Your task to perform on an android device: check google app version Image 0: 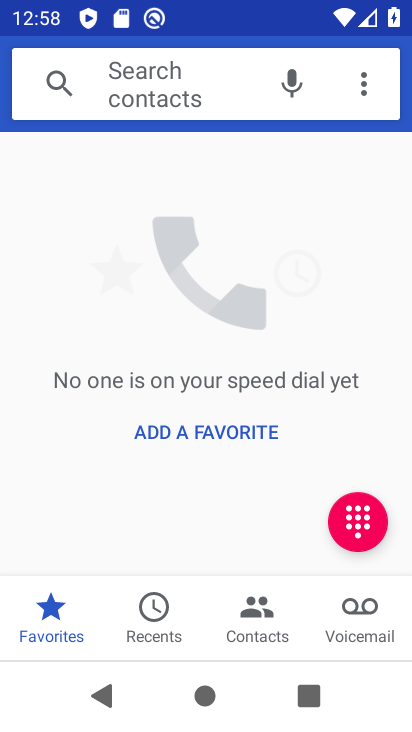
Step 0: press home button
Your task to perform on an android device: check google app version Image 1: 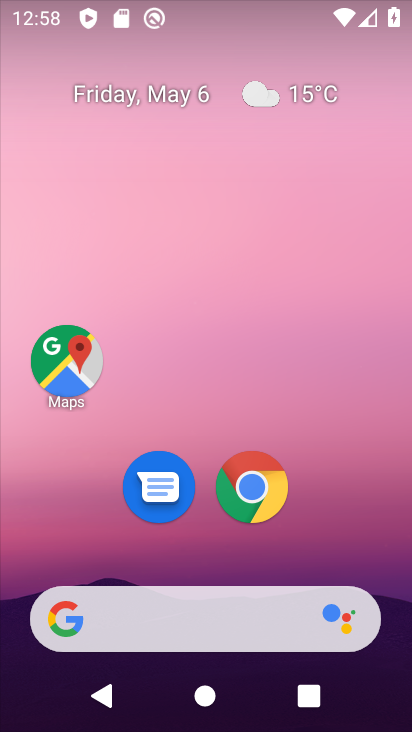
Step 1: drag from (332, 545) to (270, 74)
Your task to perform on an android device: check google app version Image 2: 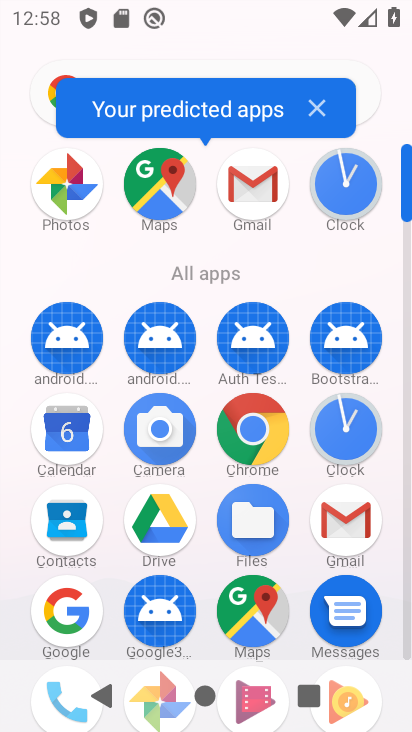
Step 2: click (47, 598)
Your task to perform on an android device: check google app version Image 3: 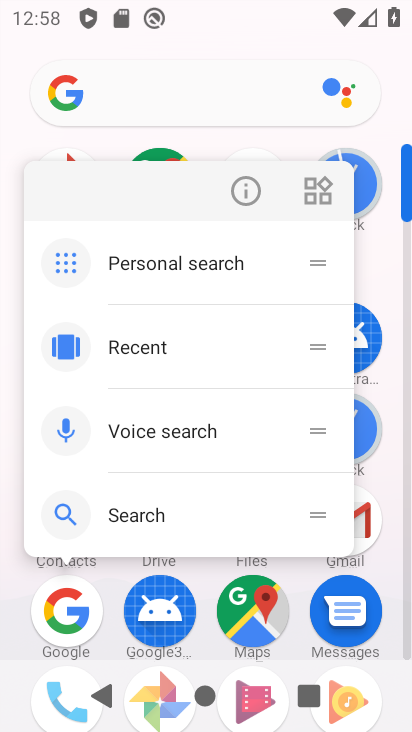
Step 3: click (240, 200)
Your task to perform on an android device: check google app version Image 4: 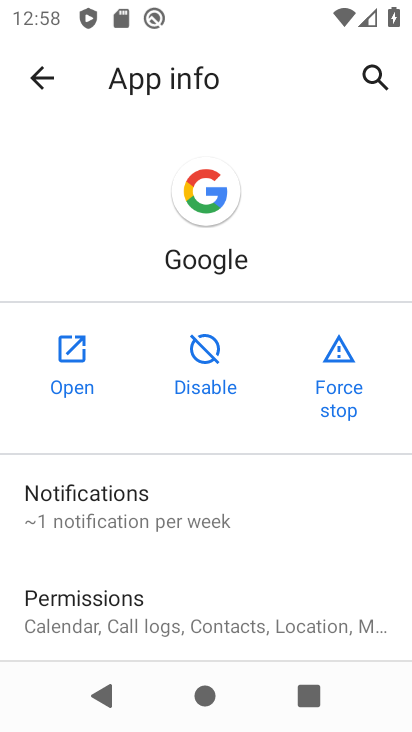
Step 4: drag from (228, 538) to (208, 325)
Your task to perform on an android device: check google app version Image 5: 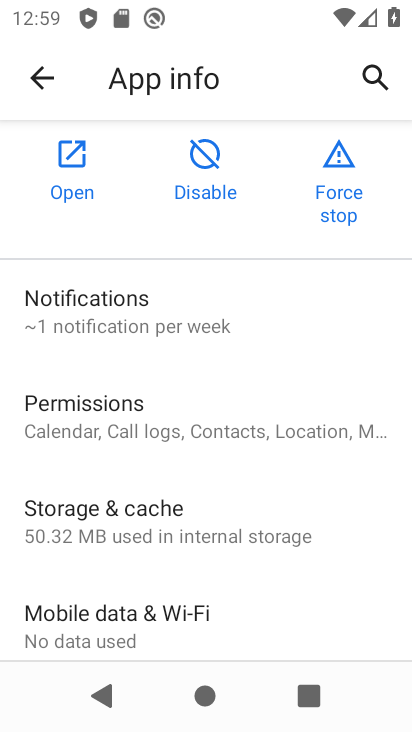
Step 5: drag from (185, 525) to (155, 76)
Your task to perform on an android device: check google app version Image 6: 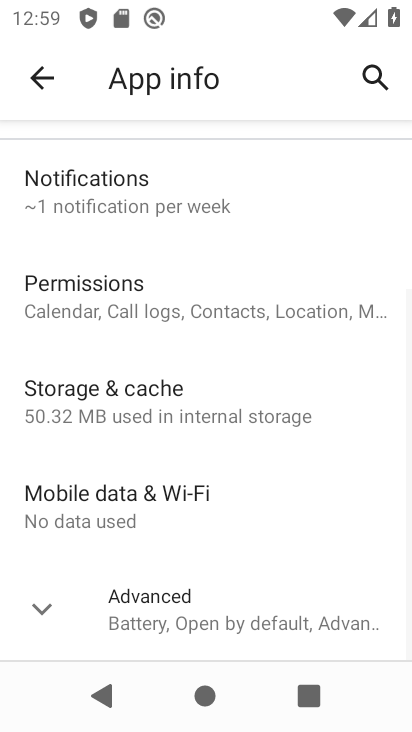
Step 6: click (183, 618)
Your task to perform on an android device: check google app version Image 7: 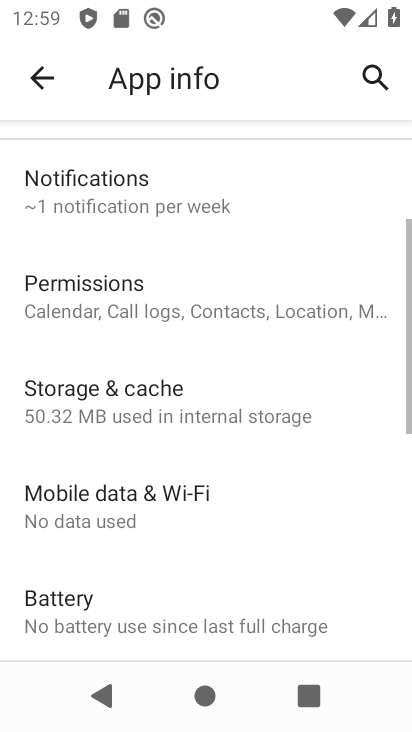
Step 7: task complete